Your task to perform on an android device: Open Google Maps and go to "Timeline" Image 0: 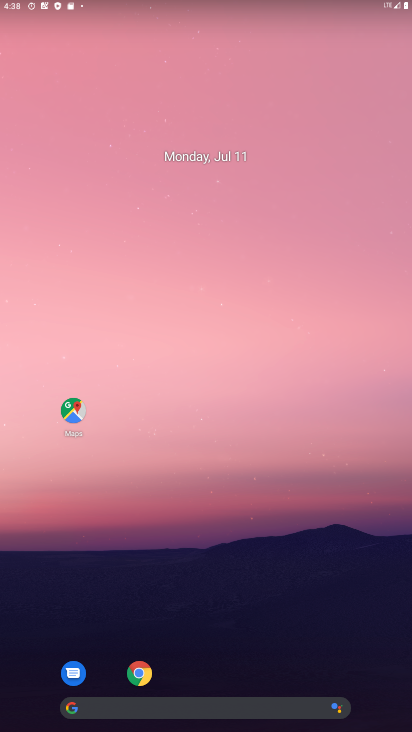
Step 0: click (72, 412)
Your task to perform on an android device: Open Google Maps and go to "Timeline" Image 1: 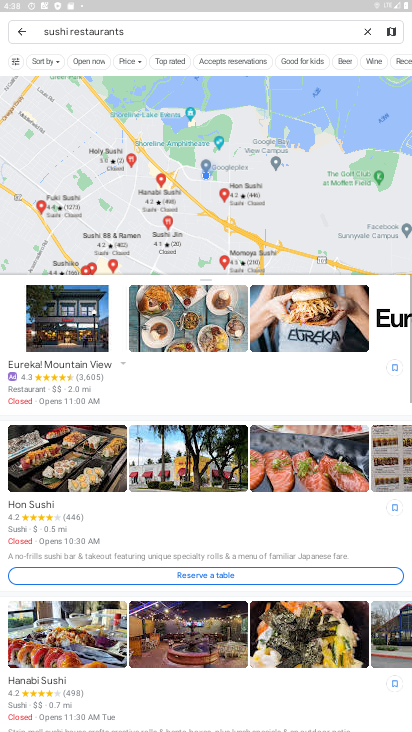
Step 1: press back button
Your task to perform on an android device: Open Google Maps and go to "Timeline" Image 2: 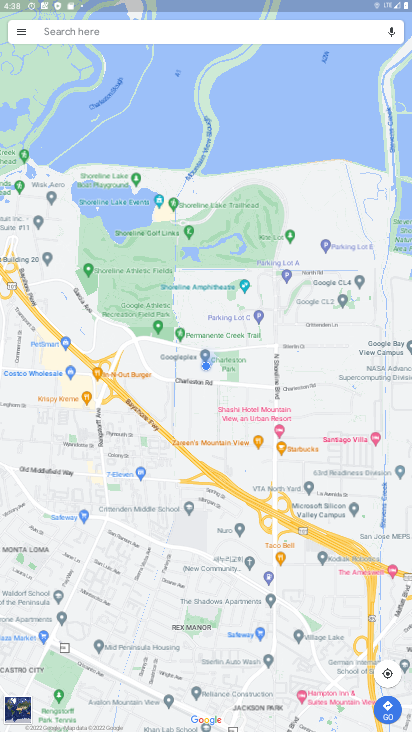
Step 2: click (19, 32)
Your task to perform on an android device: Open Google Maps and go to "Timeline" Image 3: 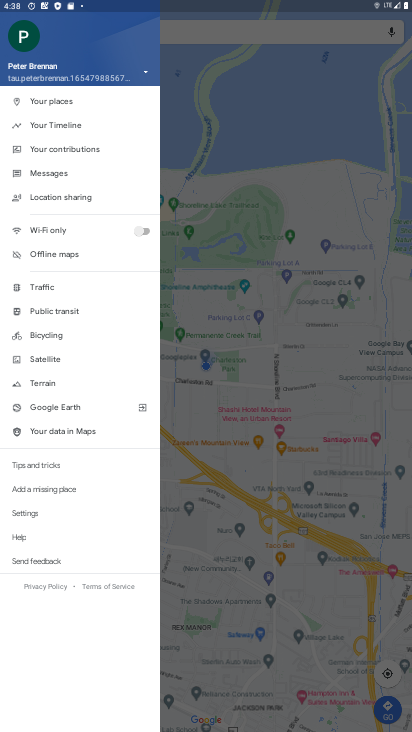
Step 3: click (57, 120)
Your task to perform on an android device: Open Google Maps and go to "Timeline" Image 4: 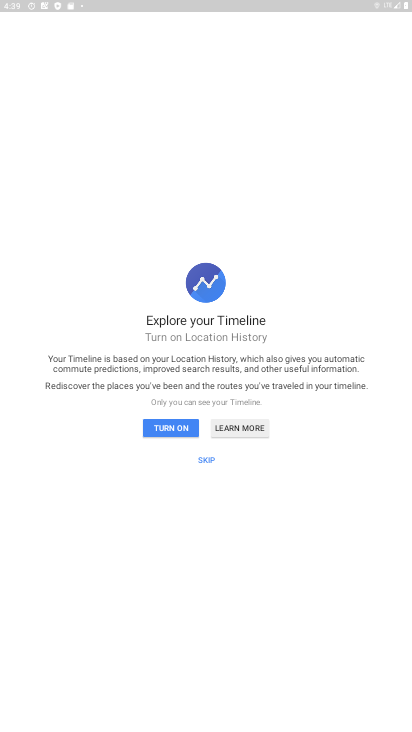
Step 4: click (207, 455)
Your task to perform on an android device: Open Google Maps and go to "Timeline" Image 5: 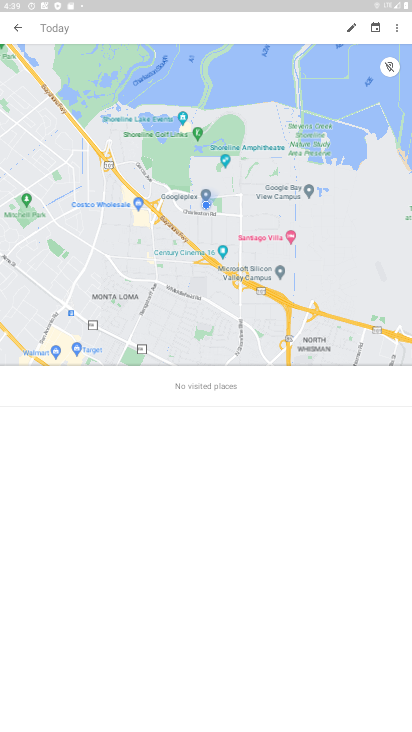
Step 5: task complete